Your task to perform on an android device: Show me the alarms in the clock app Image 0: 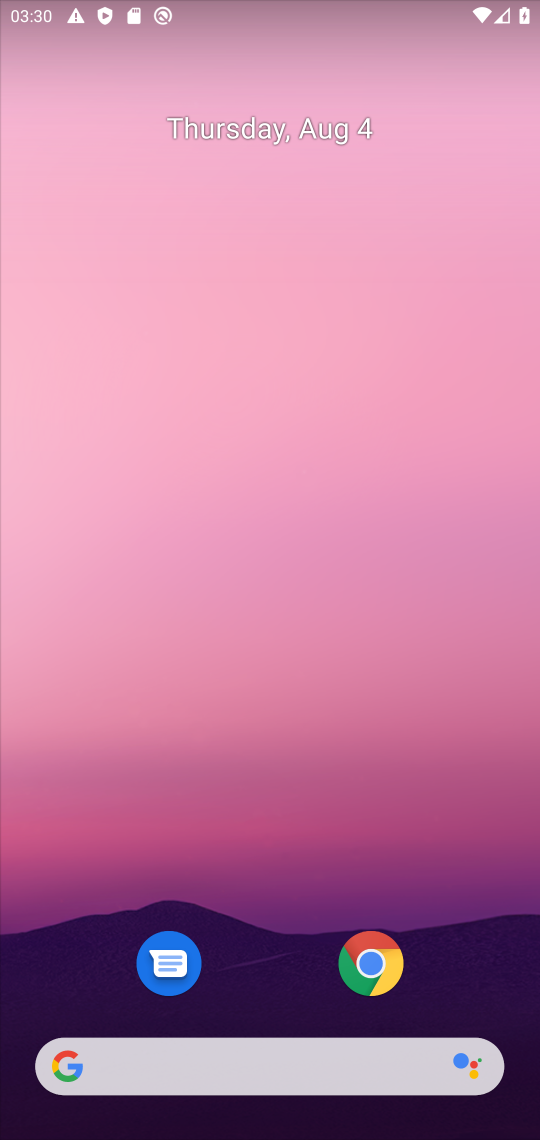
Step 0: drag from (292, 935) to (363, 102)
Your task to perform on an android device: Show me the alarms in the clock app Image 1: 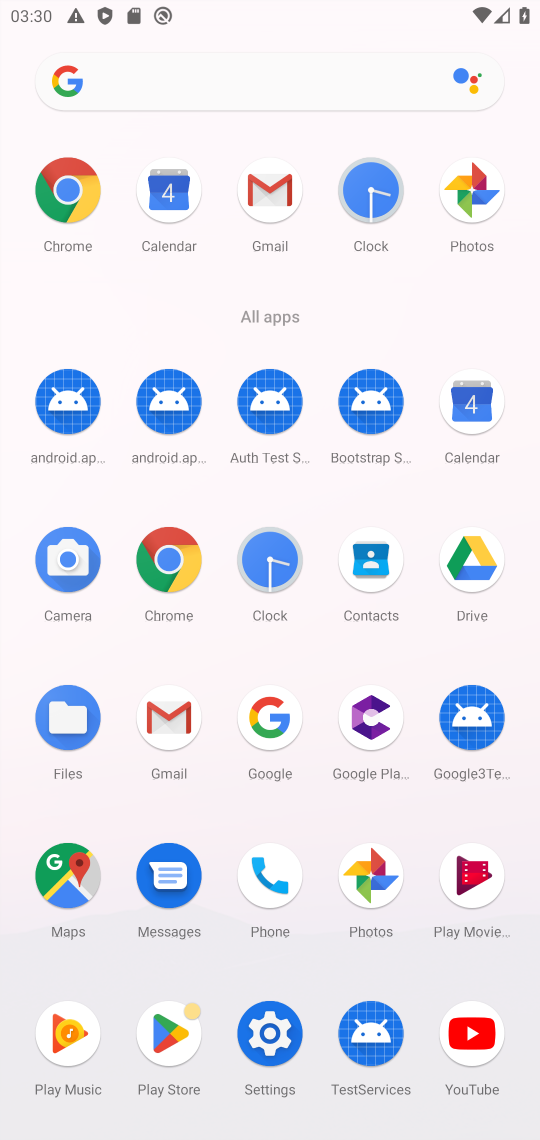
Step 1: click (366, 193)
Your task to perform on an android device: Show me the alarms in the clock app Image 2: 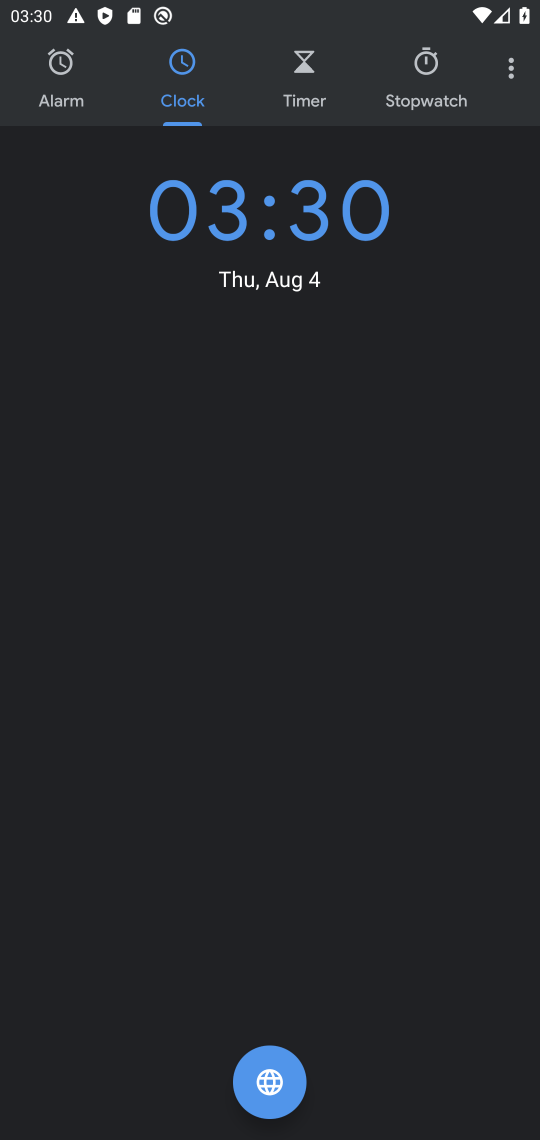
Step 2: click (63, 76)
Your task to perform on an android device: Show me the alarms in the clock app Image 3: 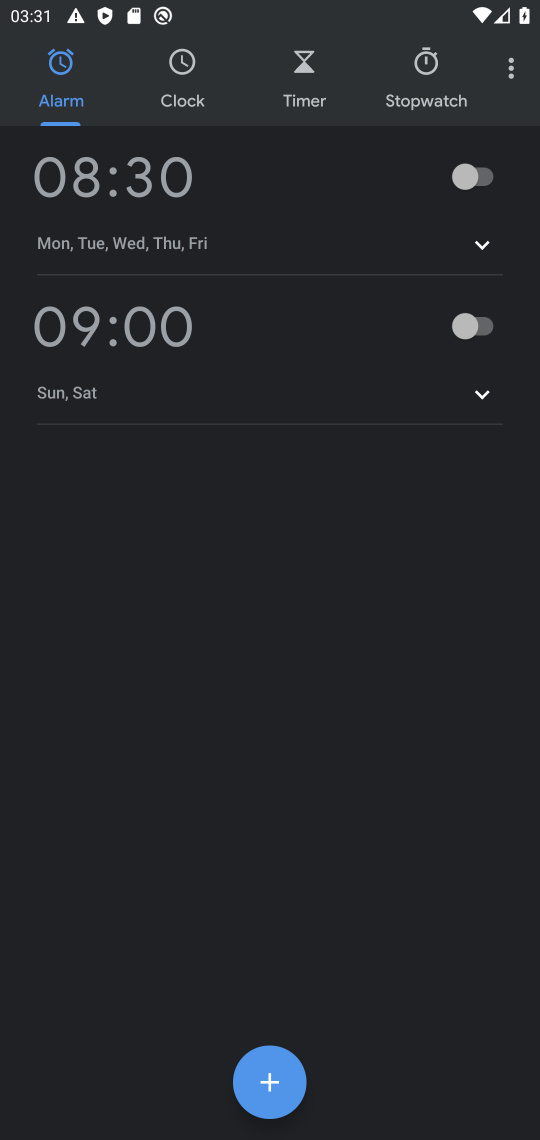
Step 3: task complete